Your task to perform on an android device: open the mobile data screen to see how much data has been used Image 0: 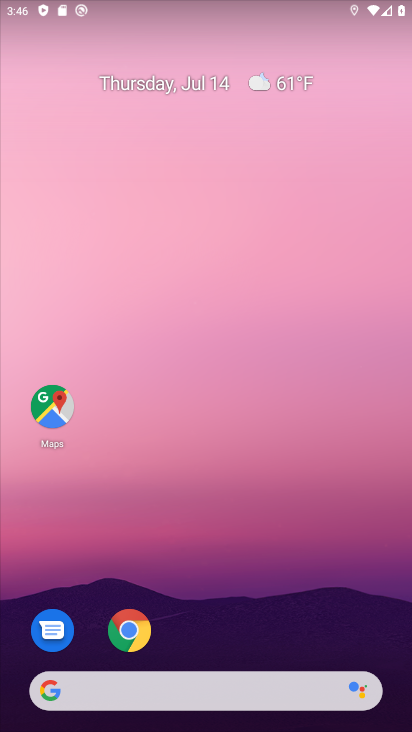
Step 0: drag from (275, 611) to (228, 136)
Your task to perform on an android device: open the mobile data screen to see how much data has been used Image 1: 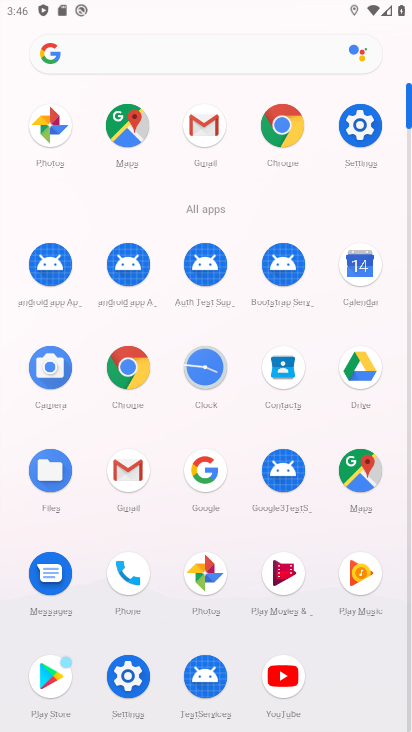
Step 1: click (363, 133)
Your task to perform on an android device: open the mobile data screen to see how much data has been used Image 2: 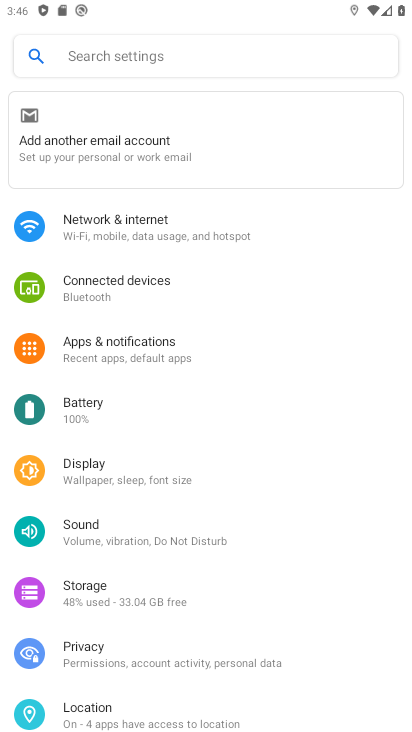
Step 2: click (200, 233)
Your task to perform on an android device: open the mobile data screen to see how much data has been used Image 3: 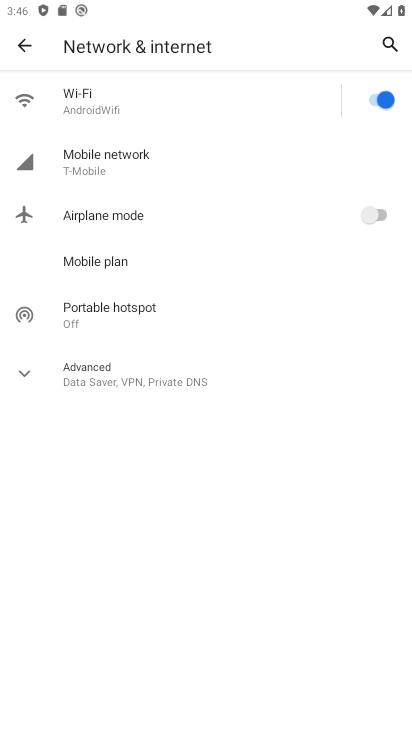
Step 3: click (148, 173)
Your task to perform on an android device: open the mobile data screen to see how much data has been used Image 4: 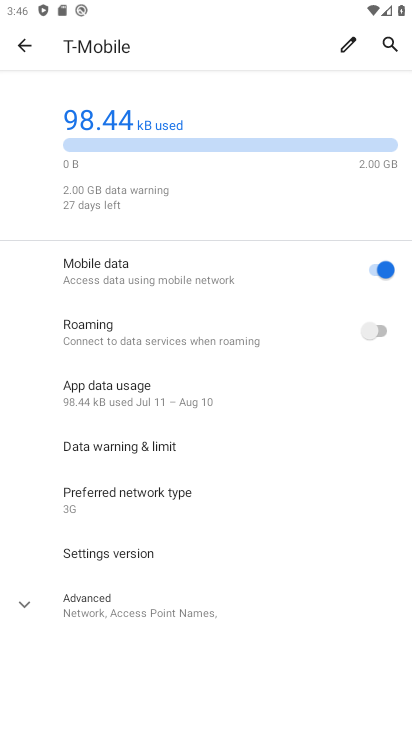
Step 4: task complete